Your task to perform on an android device: empty trash in google photos Image 0: 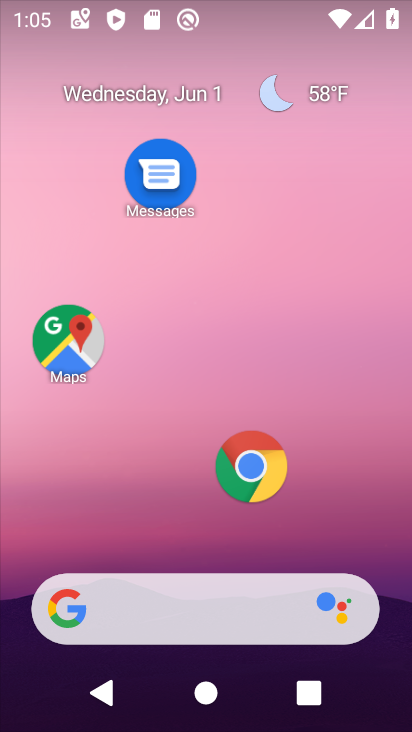
Step 0: drag from (170, 583) to (203, 53)
Your task to perform on an android device: empty trash in google photos Image 1: 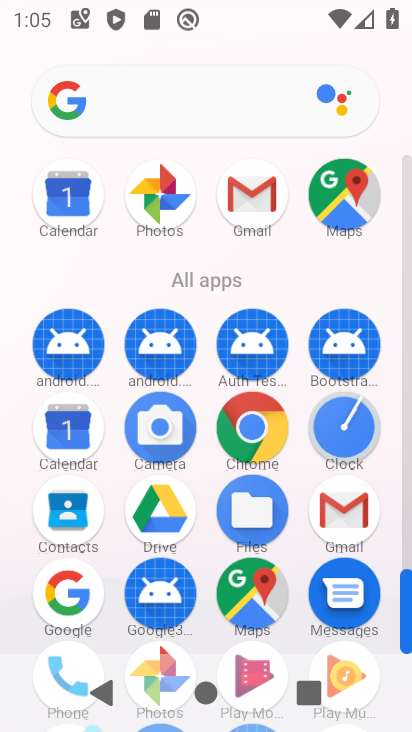
Step 1: click (151, 175)
Your task to perform on an android device: empty trash in google photos Image 2: 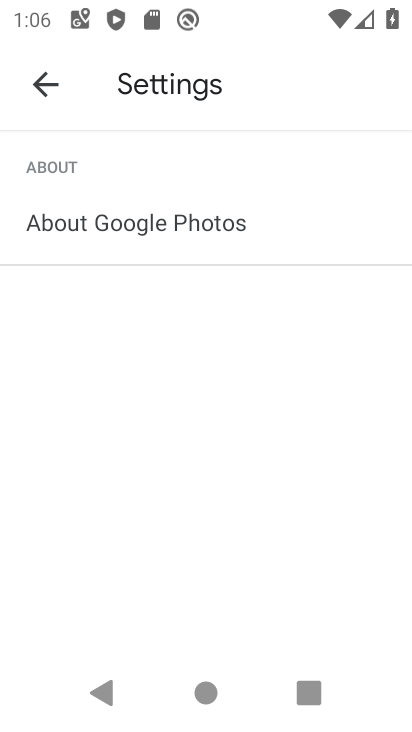
Step 2: click (53, 75)
Your task to perform on an android device: empty trash in google photos Image 3: 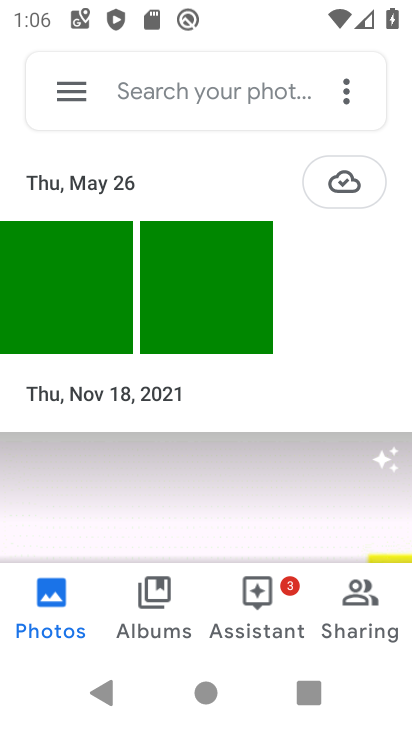
Step 3: click (57, 91)
Your task to perform on an android device: empty trash in google photos Image 4: 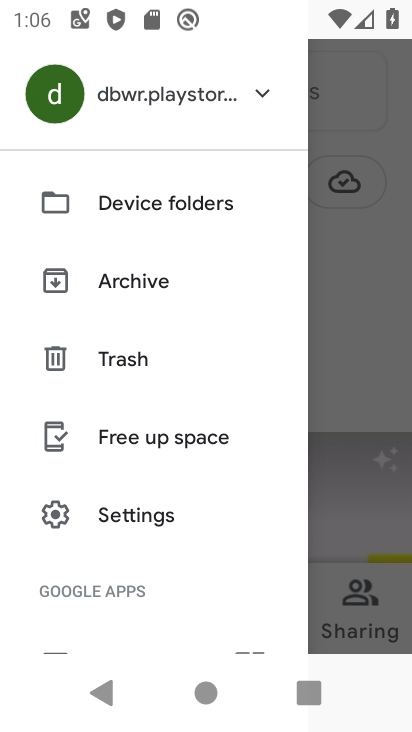
Step 4: click (117, 366)
Your task to perform on an android device: empty trash in google photos Image 5: 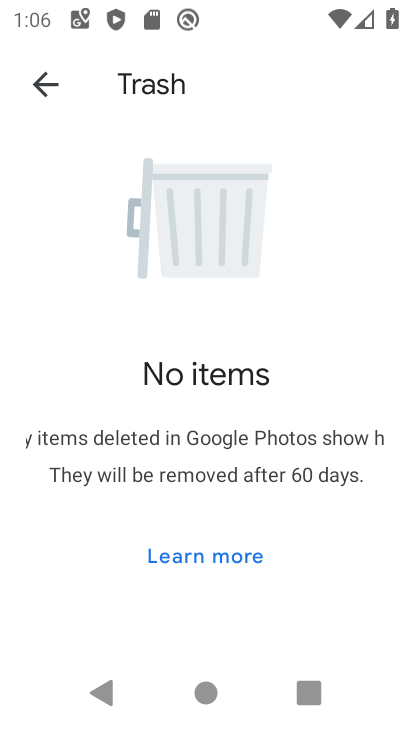
Step 5: task complete